Your task to perform on an android device: Clear the cart on walmart. Image 0: 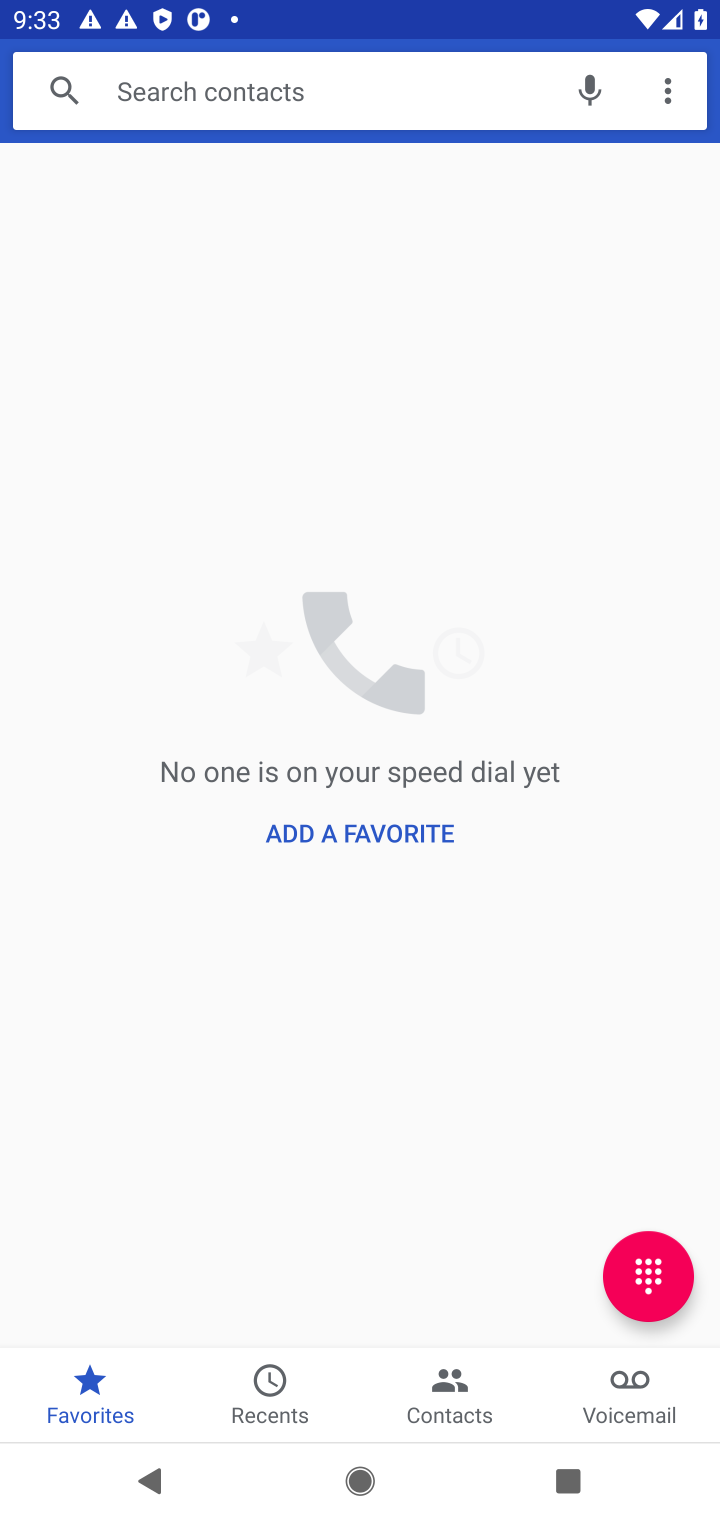
Step 0: press home button
Your task to perform on an android device: Clear the cart on walmart. Image 1: 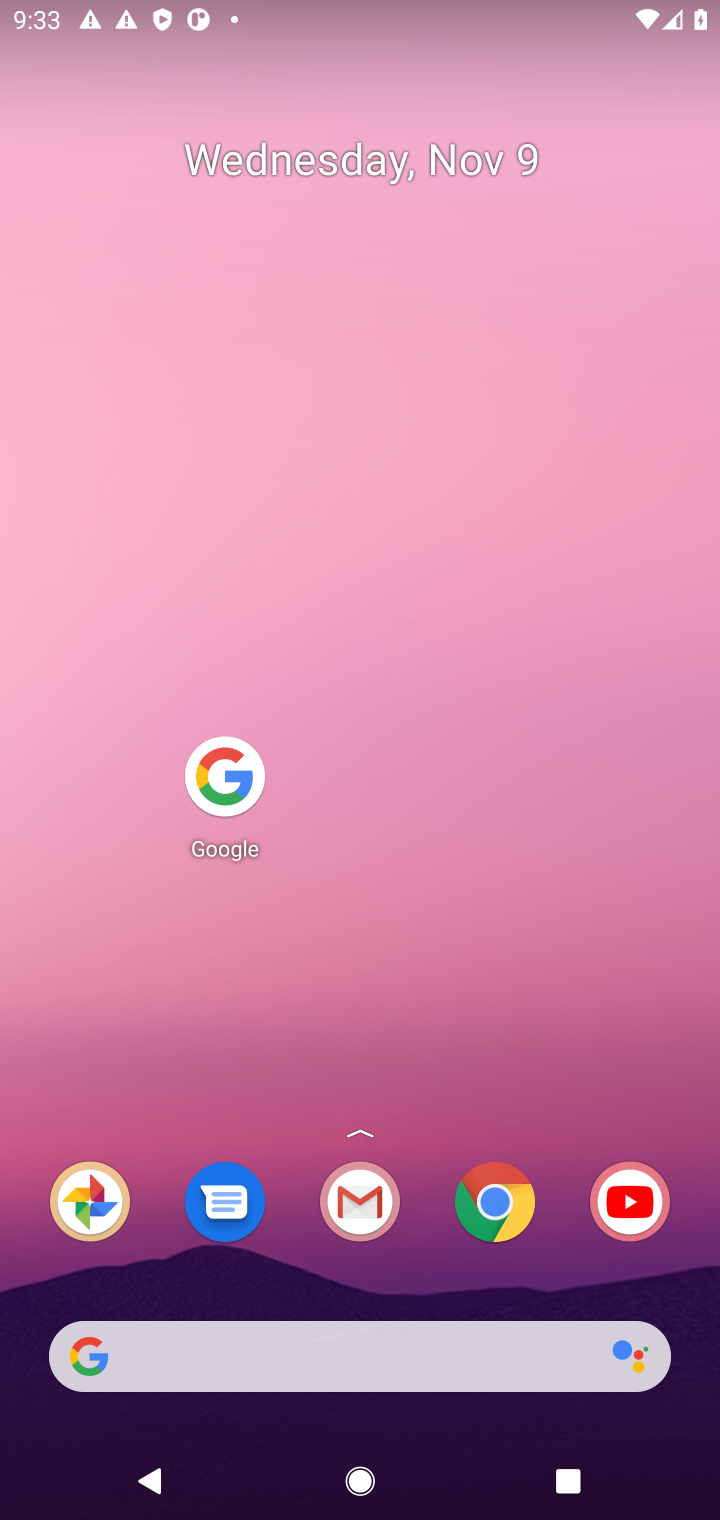
Step 1: click (222, 767)
Your task to perform on an android device: Clear the cart on walmart. Image 2: 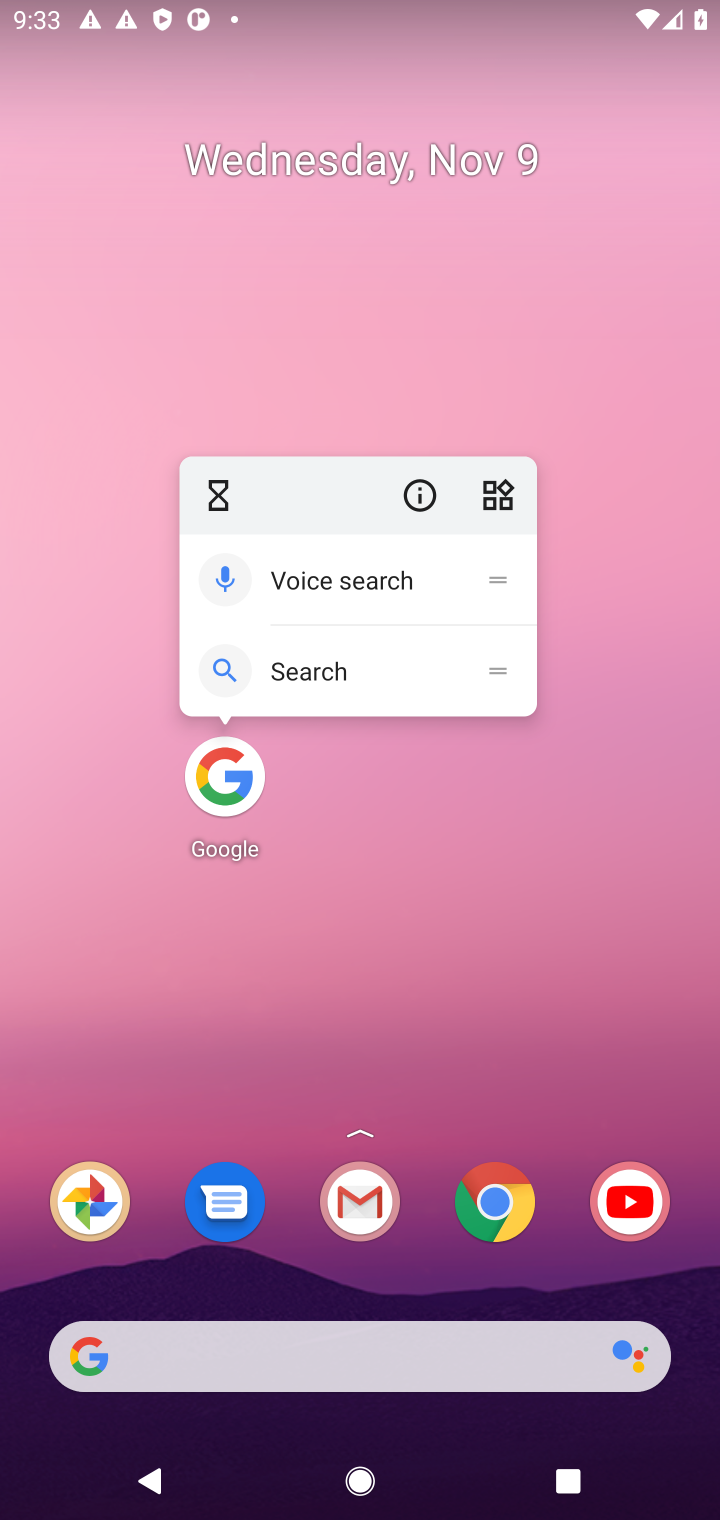
Step 2: click (218, 786)
Your task to perform on an android device: Clear the cart on walmart. Image 3: 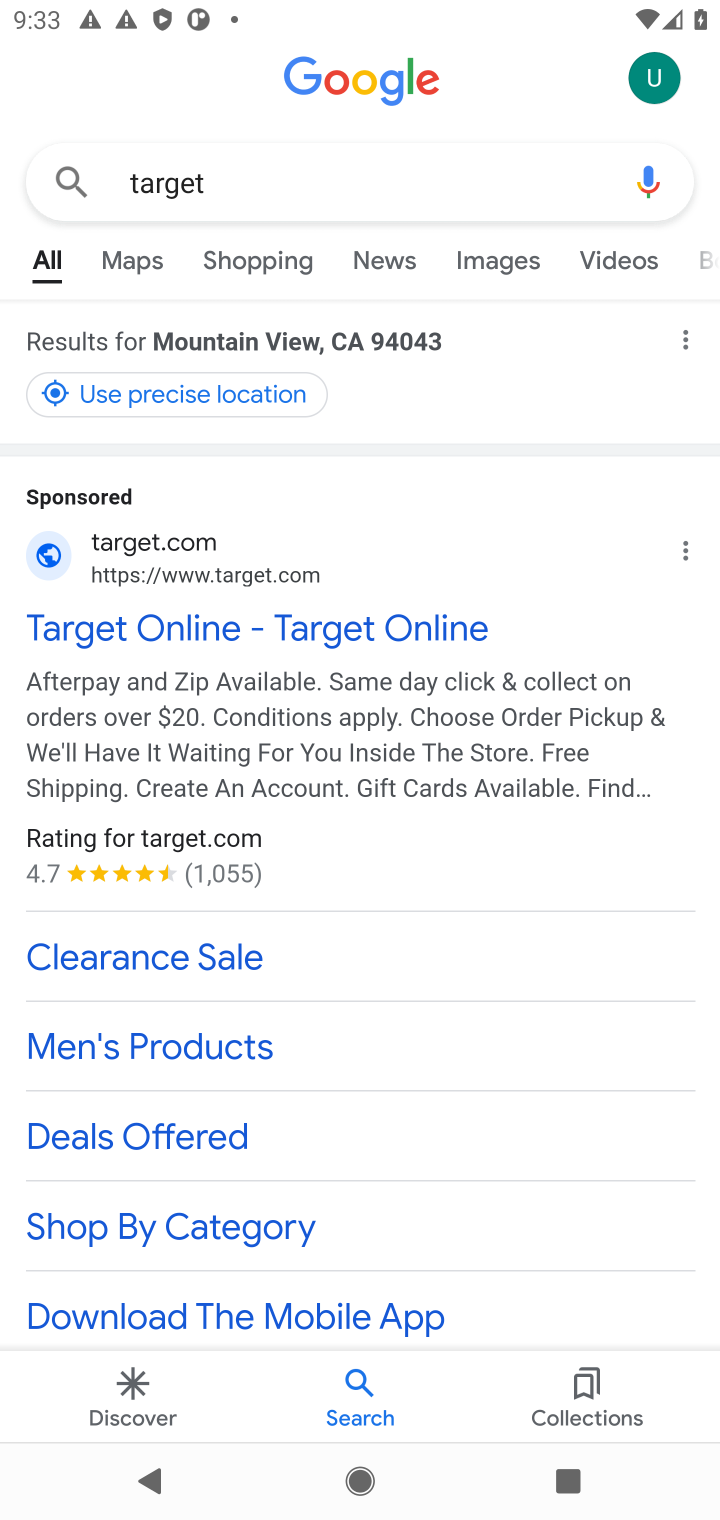
Step 3: click (244, 171)
Your task to perform on an android device: Clear the cart on walmart. Image 4: 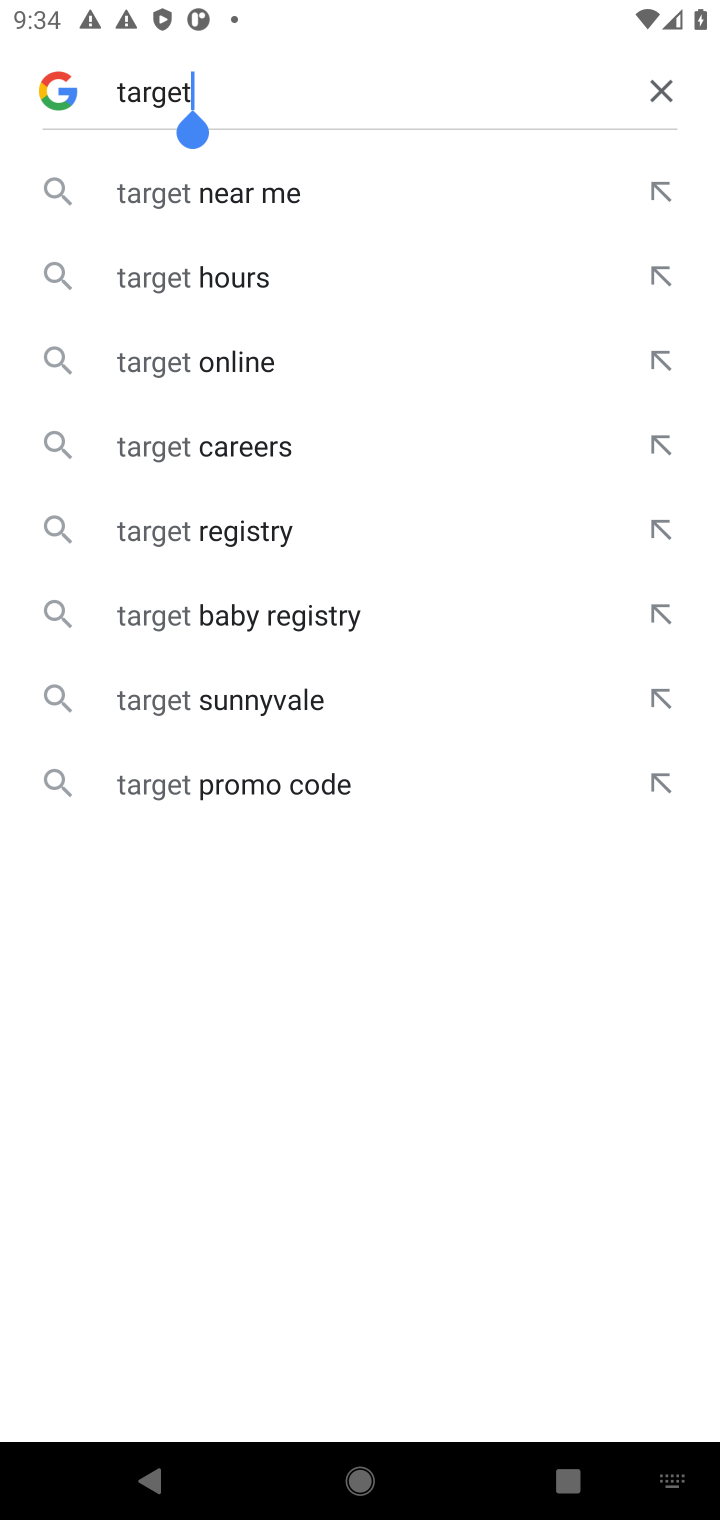
Step 4: click (658, 88)
Your task to perform on an android device: Clear the cart on walmart. Image 5: 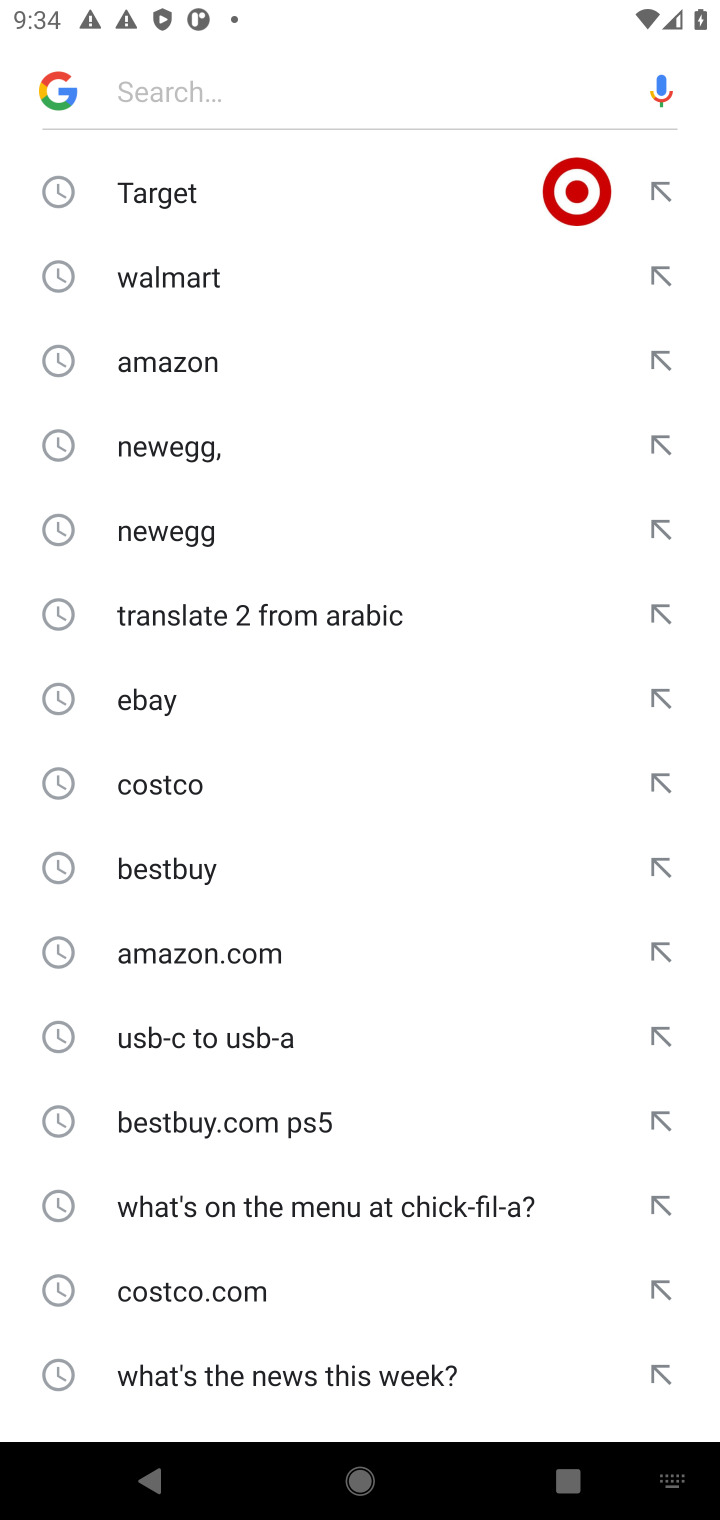
Step 5: click (151, 272)
Your task to perform on an android device: Clear the cart on walmart. Image 6: 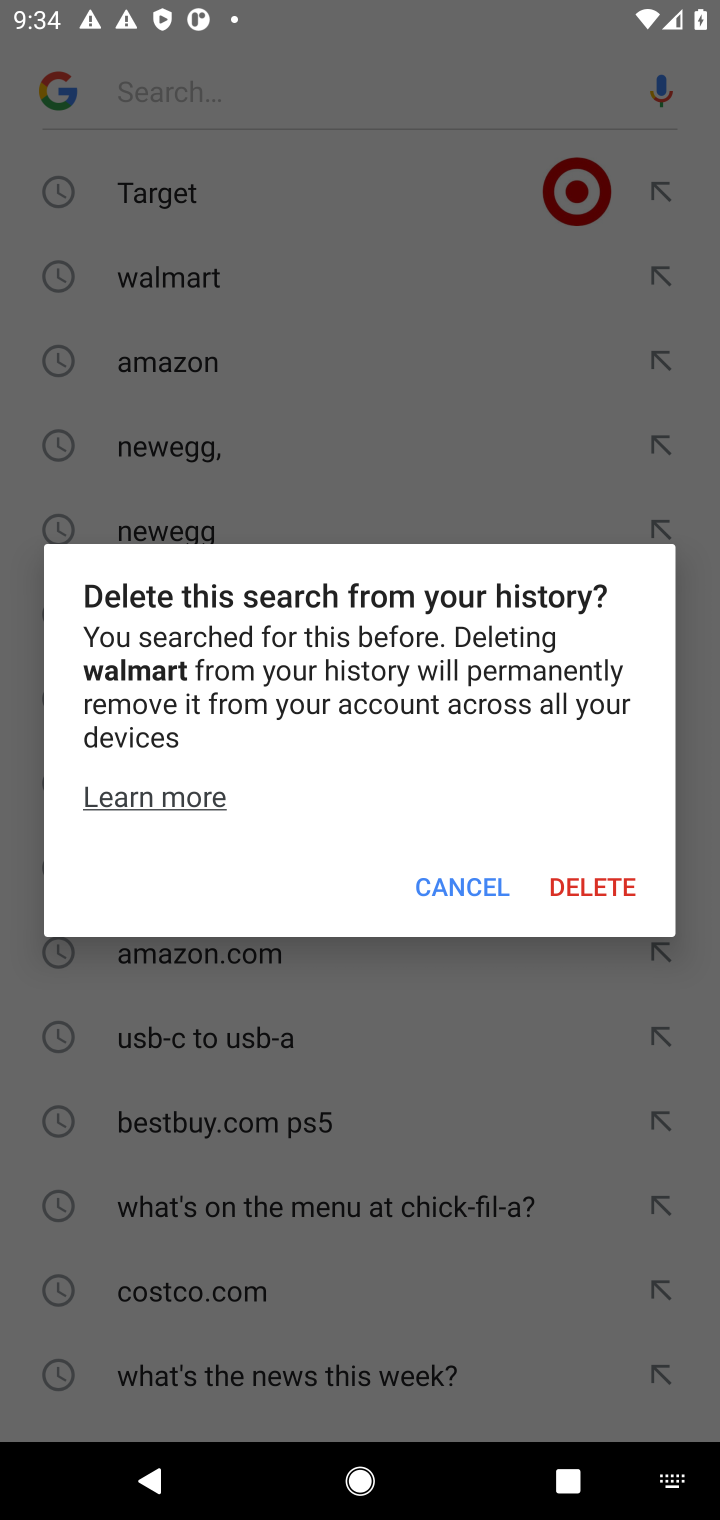
Step 6: click (437, 892)
Your task to perform on an android device: Clear the cart on walmart. Image 7: 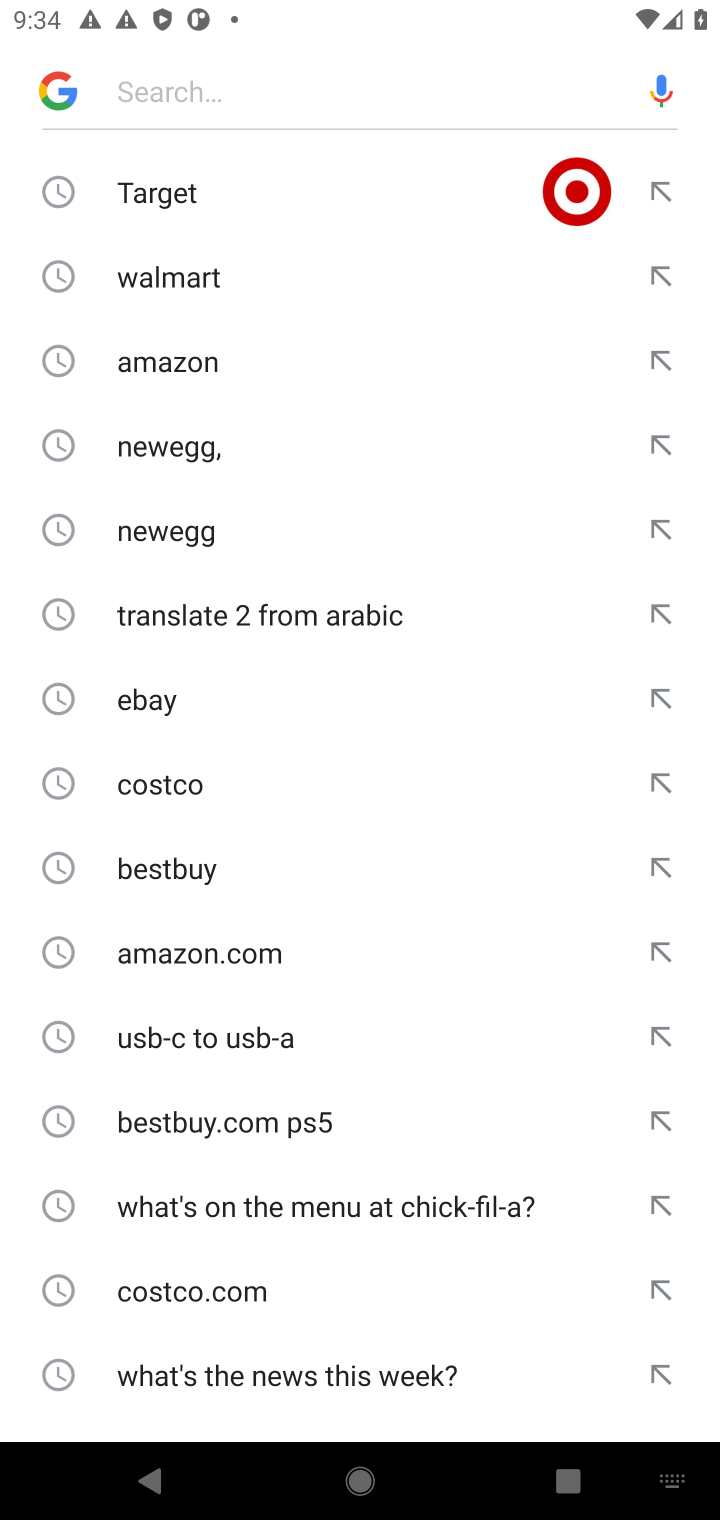
Step 7: click (129, 270)
Your task to perform on an android device: Clear the cart on walmart. Image 8: 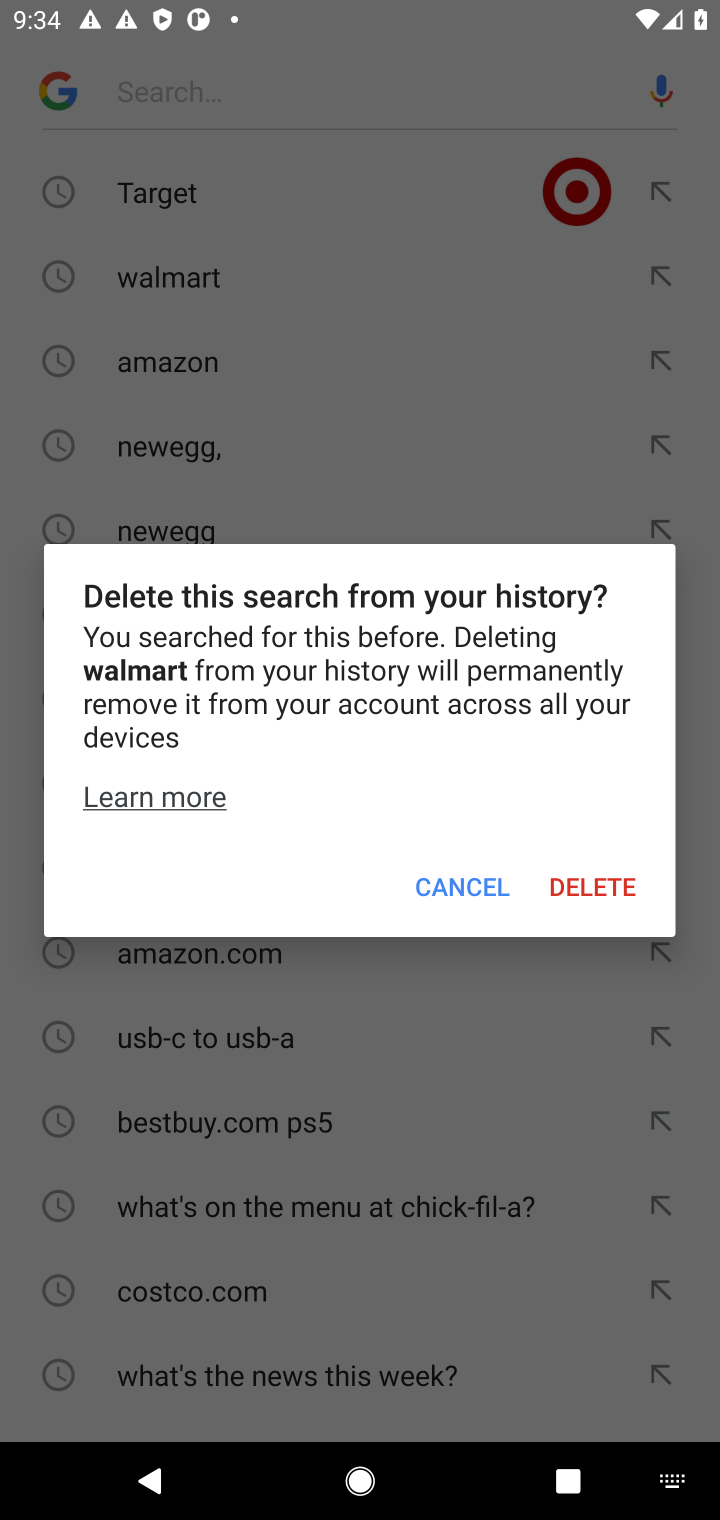
Step 8: click (479, 882)
Your task to perform on an android device: Clear the cart on walmart. Image 9: 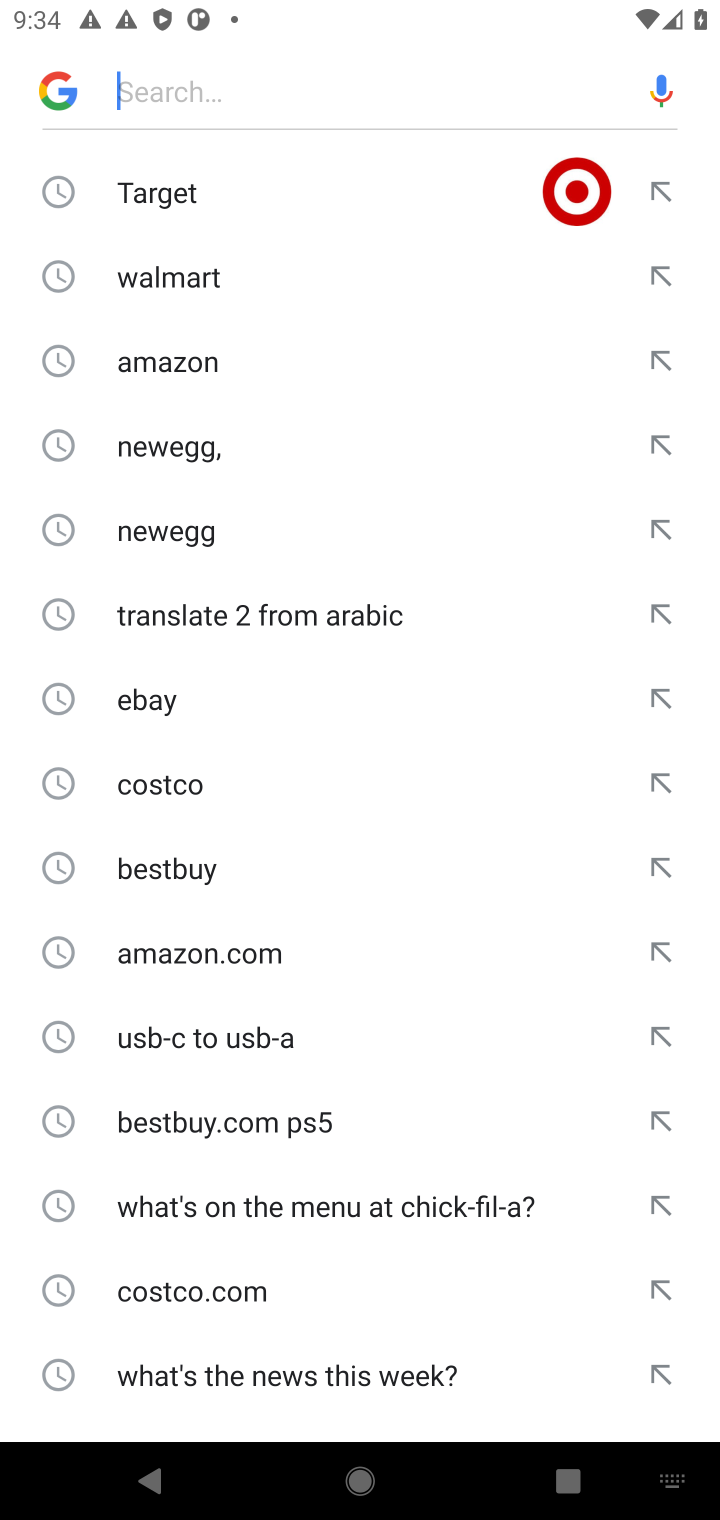
Step 9: click (161, 264)
Your task to perform on an android device: Clear the cart on walmart. Image 10: 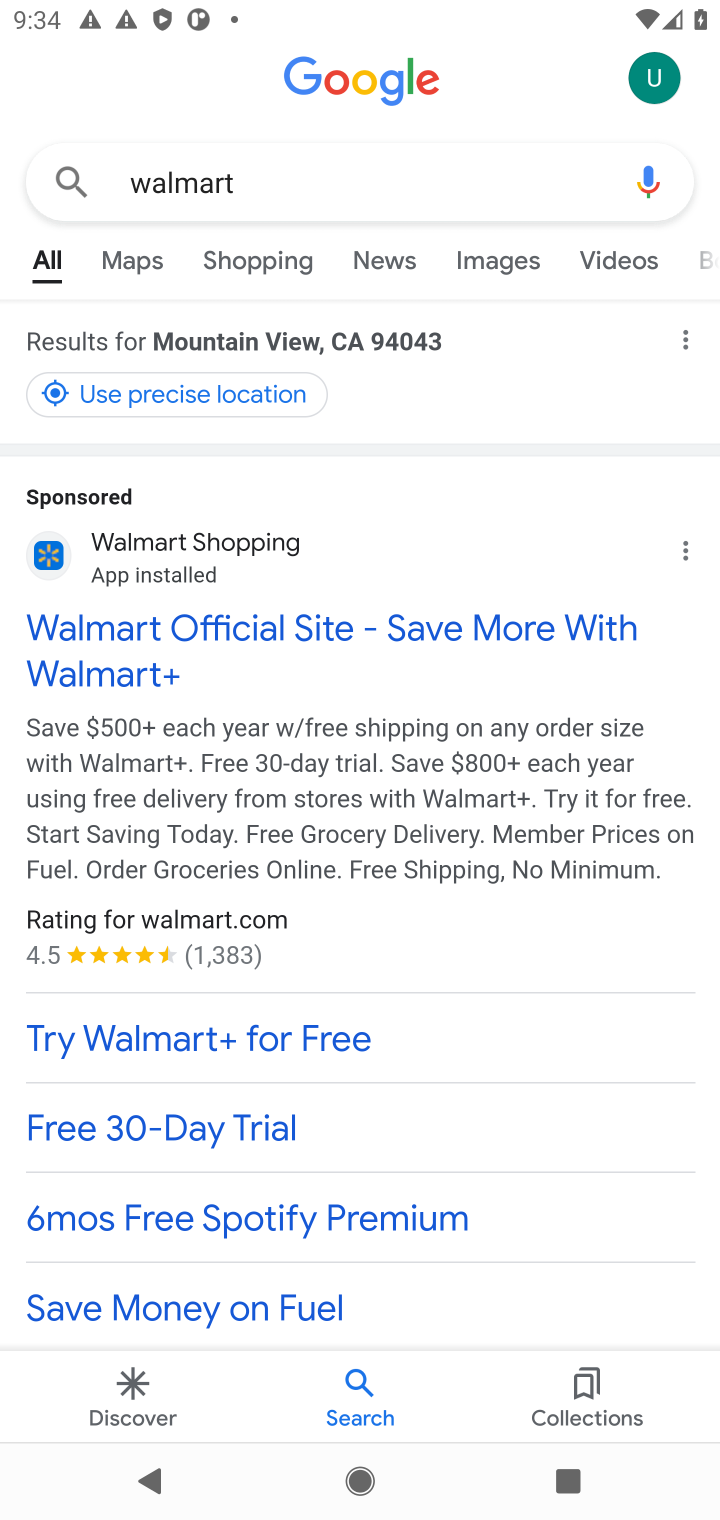
Step 10: drag from (460, 1309) to (556, 396)
Your task to perform on an android device: Clear the cart on walmart. Image 11: 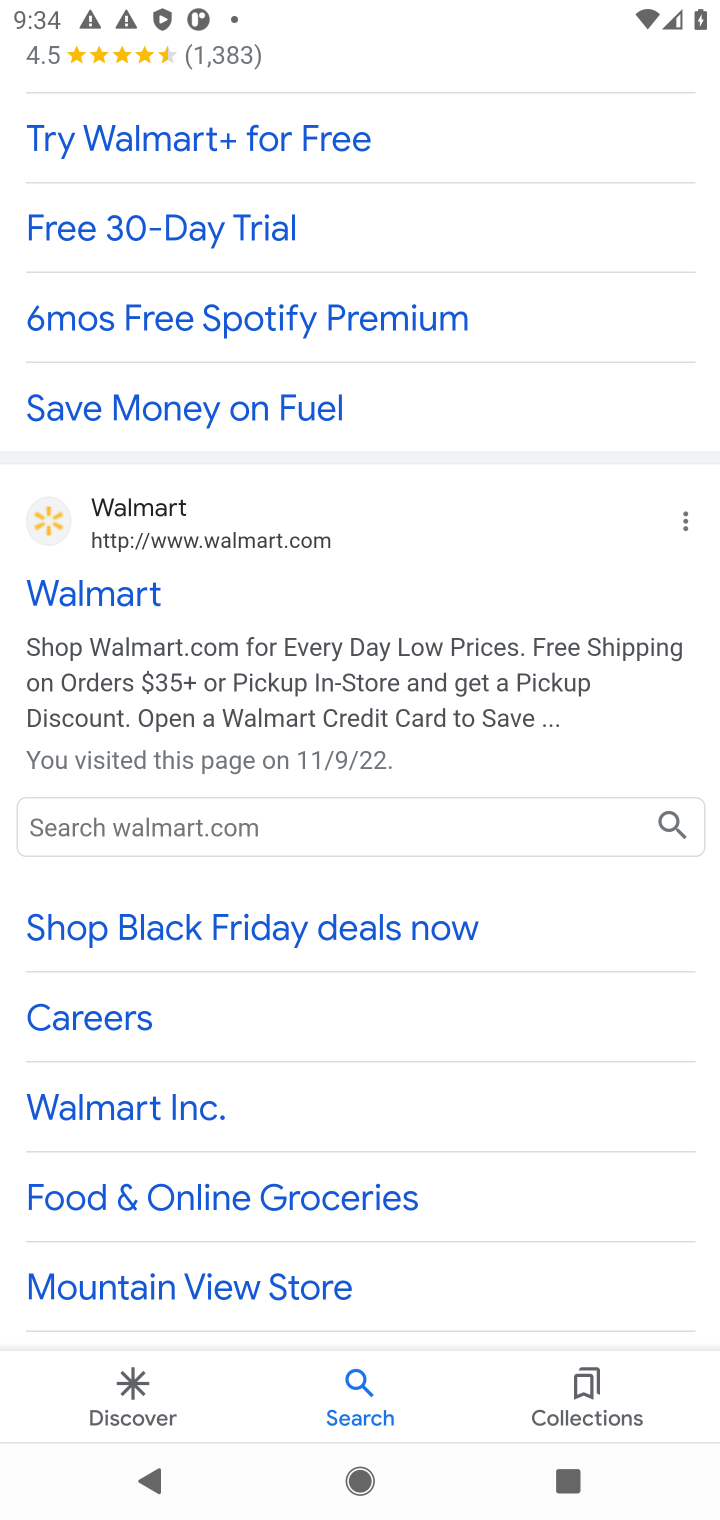
Step 11: click (95, 592)
Your task to perform on an android device: Clear the cart on walmart. Image 12: 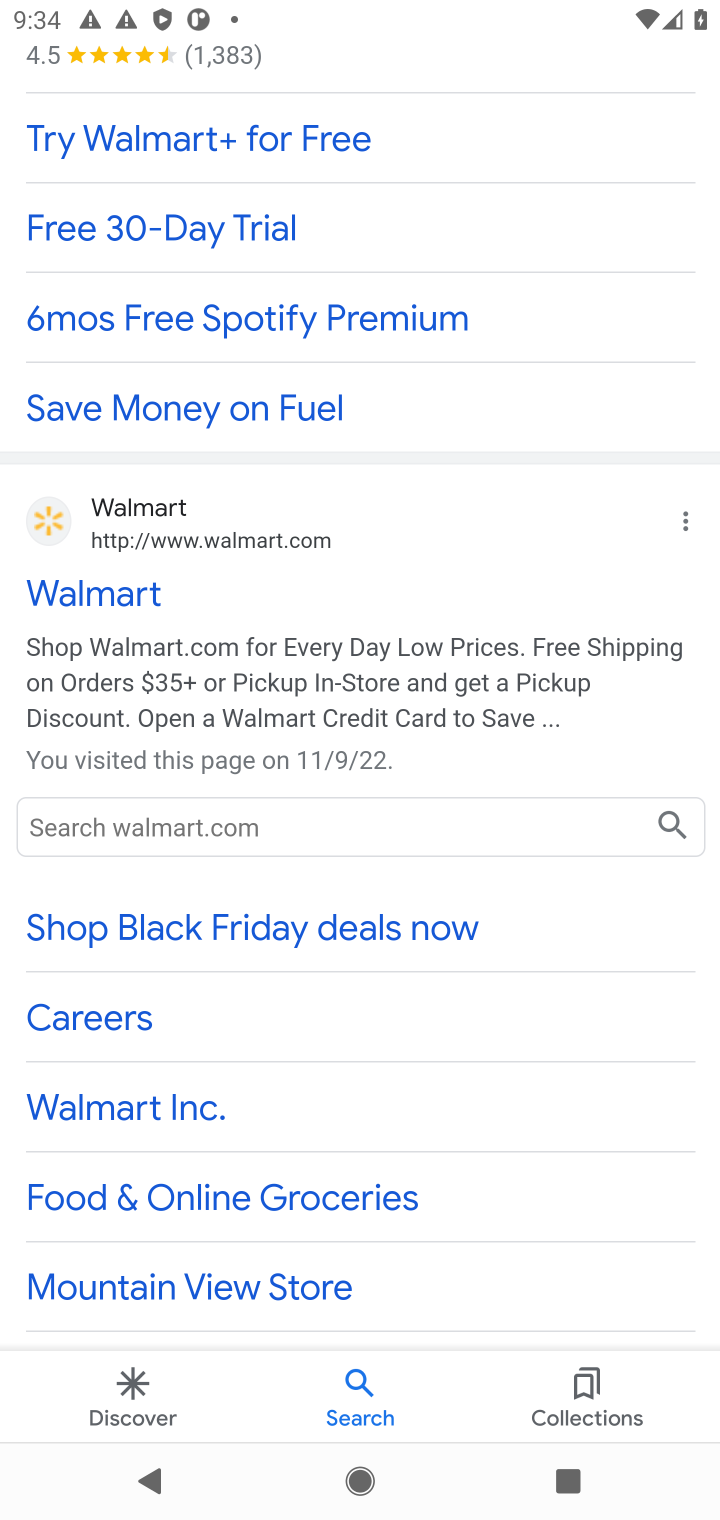
Step 12: click (105, 584)
Your task to perform on an android device: Clear the cart on walmart. Image 13: 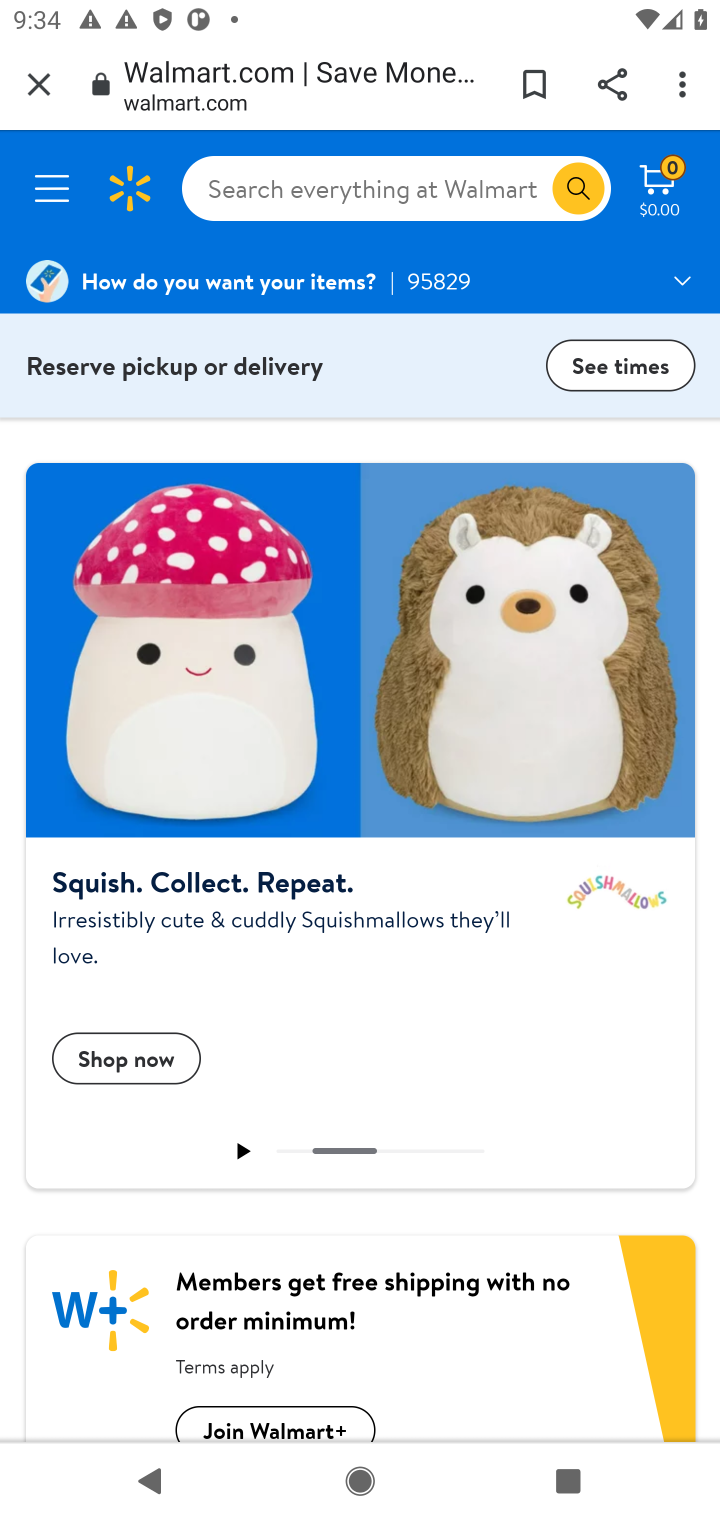
Step 13: click (239, 194)
Your task to perform on an android device: Clear the cart on walmart. Image 14: 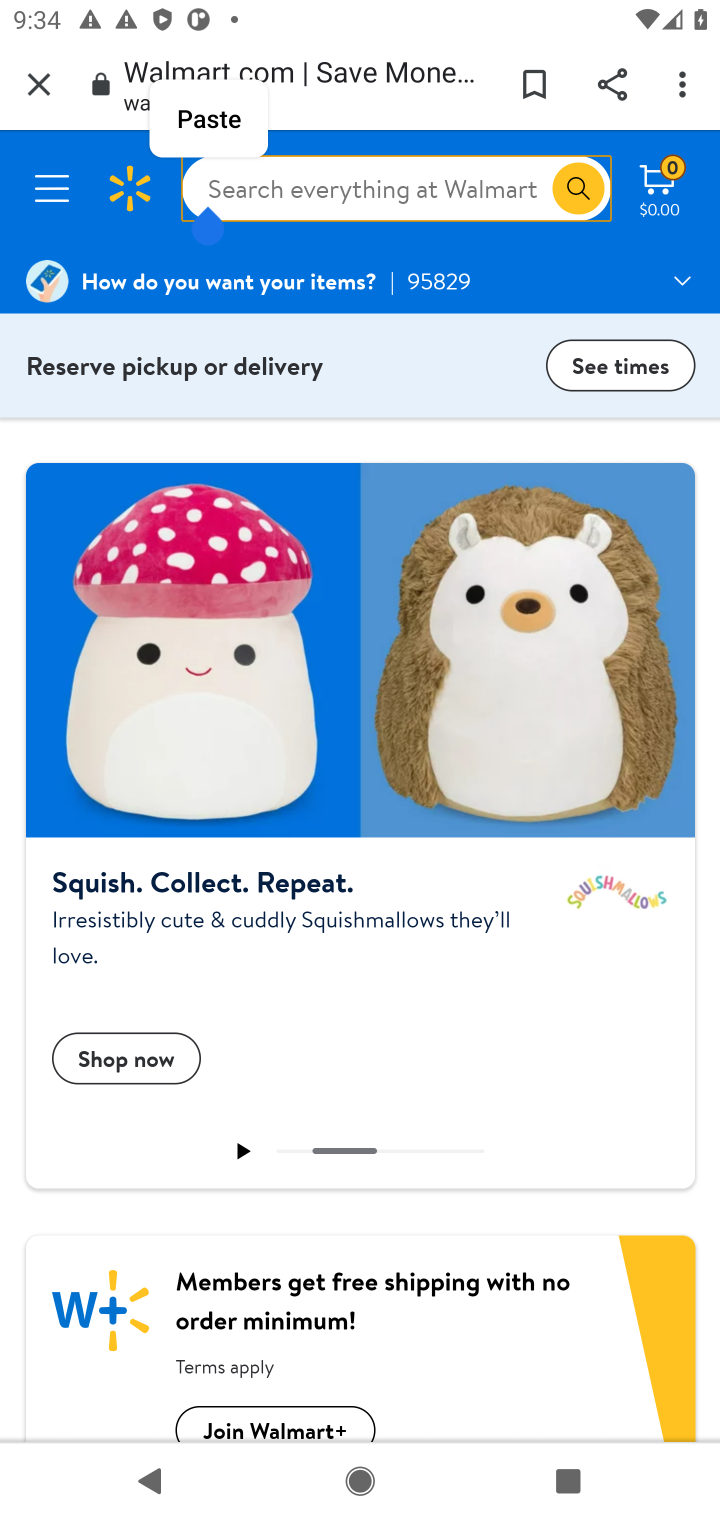
Step 14: click (660, 172)
Your task to perform on an android device: Clear the cart on walmart. Image 15: 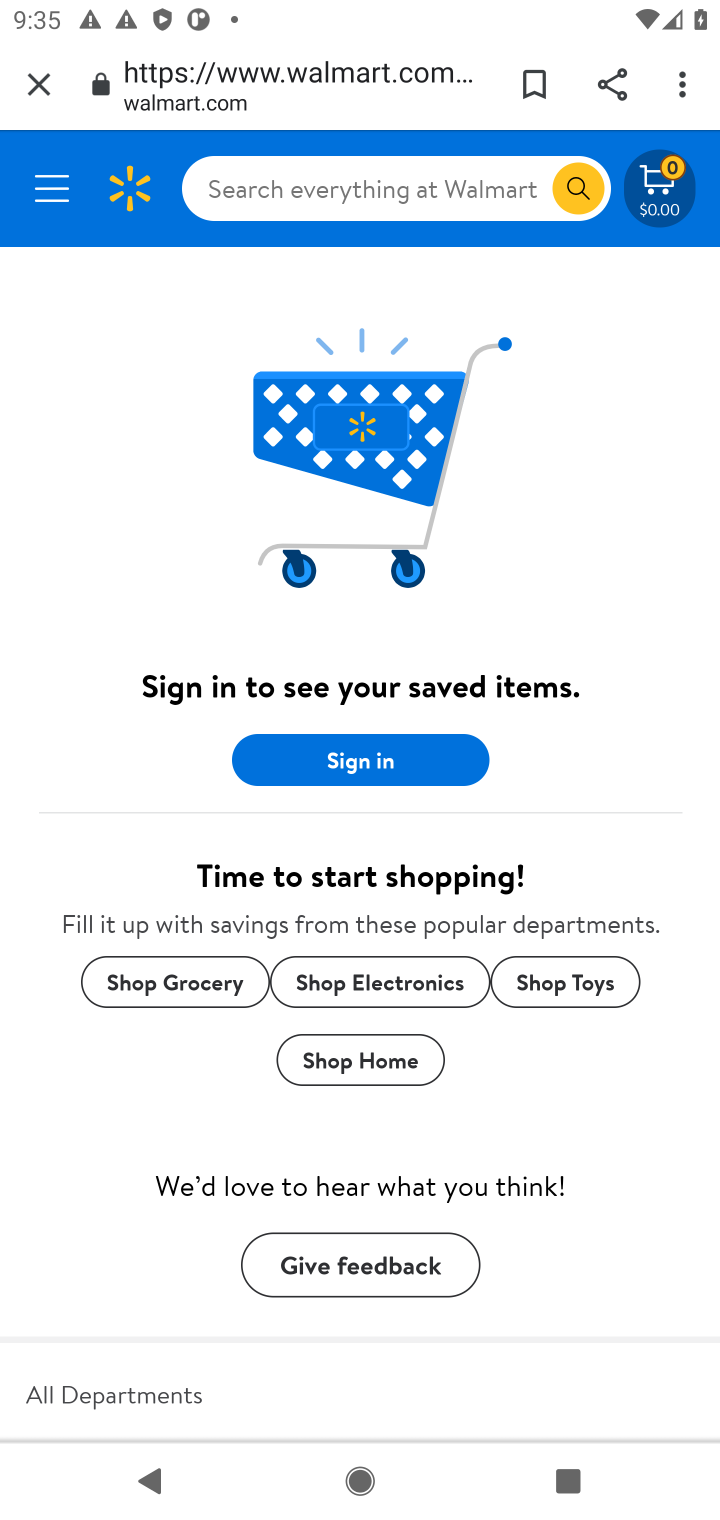
Step 15: task complete